Your task to perform on an android device: What's the weather going to be this weekend? Image 0: 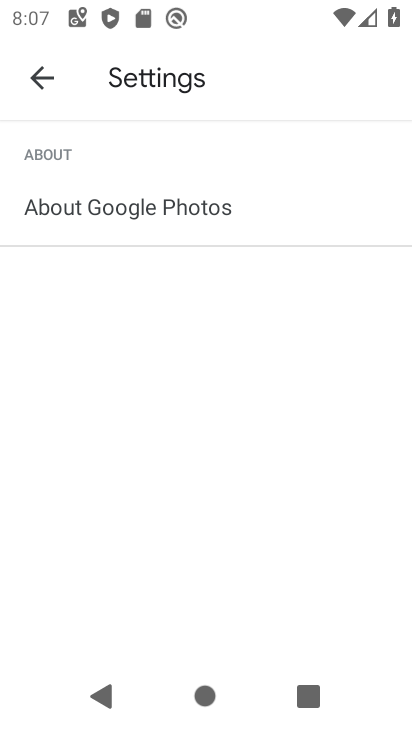
Step 0: press back button
Your task to perform on an android device: What's the weather going to be this weekend? Image 1: 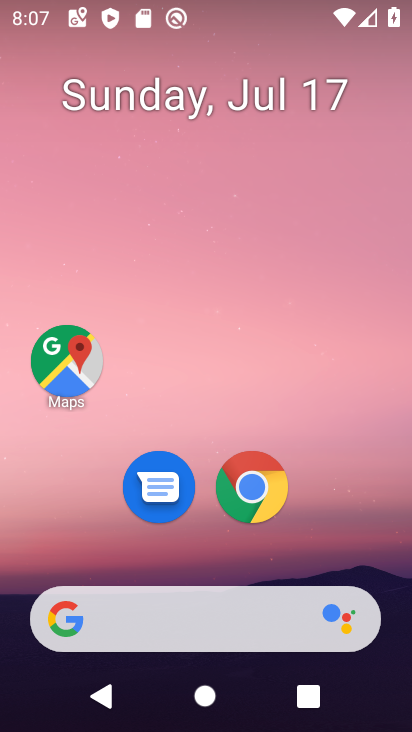
Step 1: click (186, 634)
Your task to perform on an android device: What's the weather going to be this weekend? Image 2: 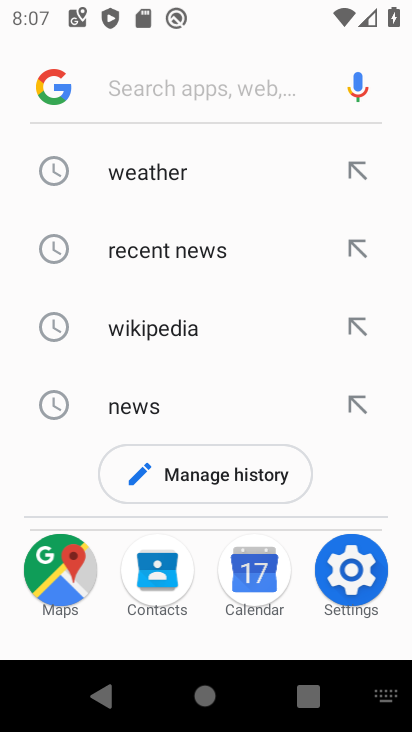
Step 2: click (192, 174)
Your task to perform on an android device: What's the weather going to be this weekend? Image 3: 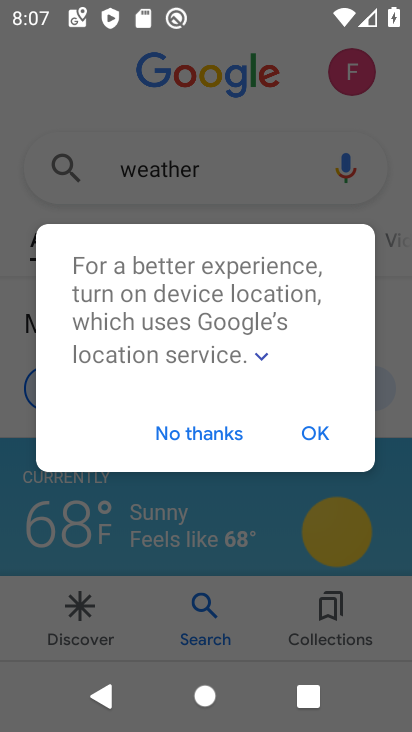
Step 3: click (187, 437)
Your task to perform on an android device: What's the weather going to be this weekend? Image 4: 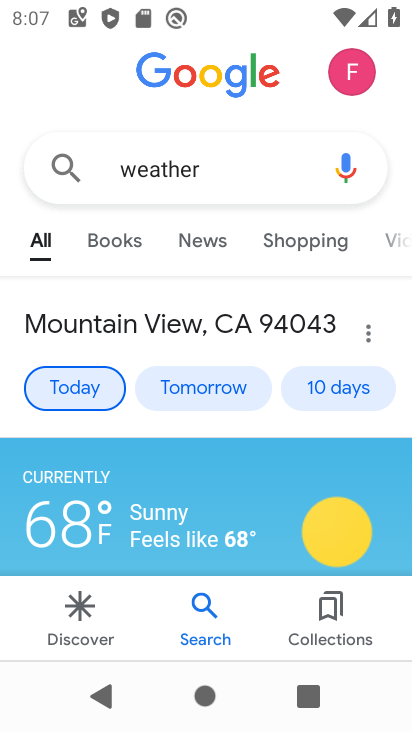
Step 4: click (334, 389)
Your task to perform on an android device: What's the weather going to be this weekend? Image 5: 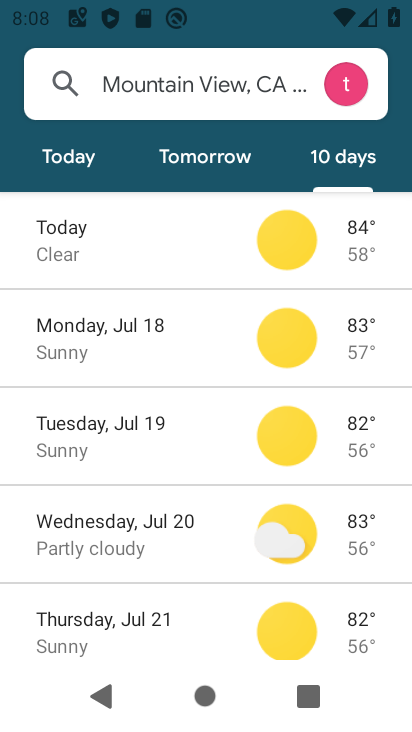
Step 5: task complete